Your task to perform on an android device: Go to Yahoo.com Image 0: 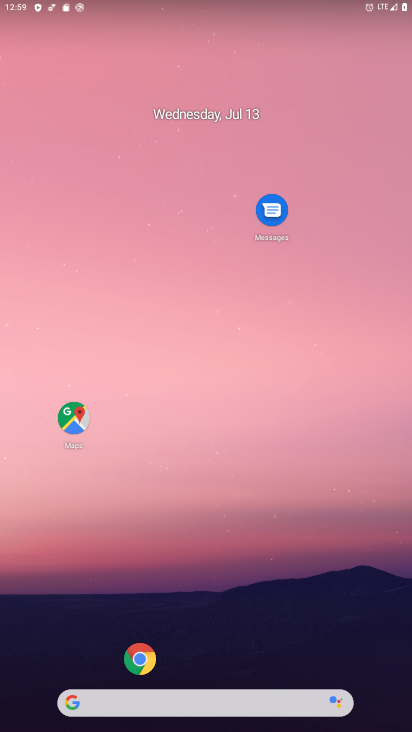
Step 0: click (198, 704)
Your task to perform on an android device: Go to Yahoo.com Image 1: 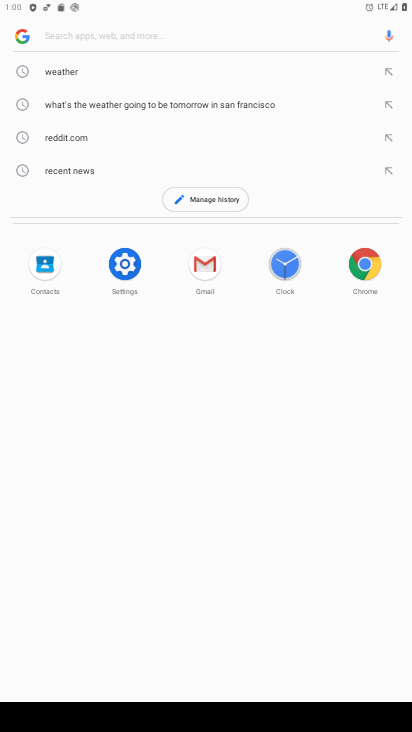
Step 1: type "Yahoo.com"
Your task to perform on an android device: Go to Yahoo.com Image 2: 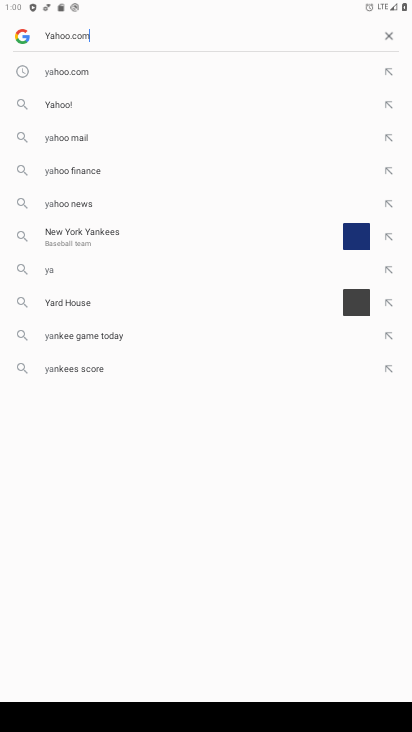
Step 2: type ""
Your task to perform on an android device: Go to Yahoo.com Image 3: 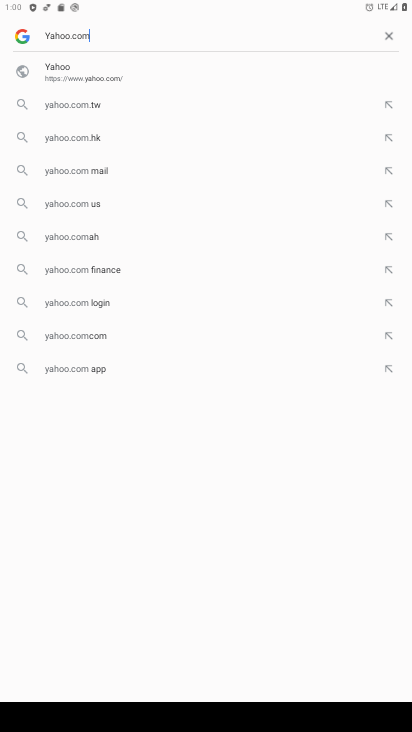
Step 3: task complete